Your task to perform on an android device: star an email in the gmail app Image 0: 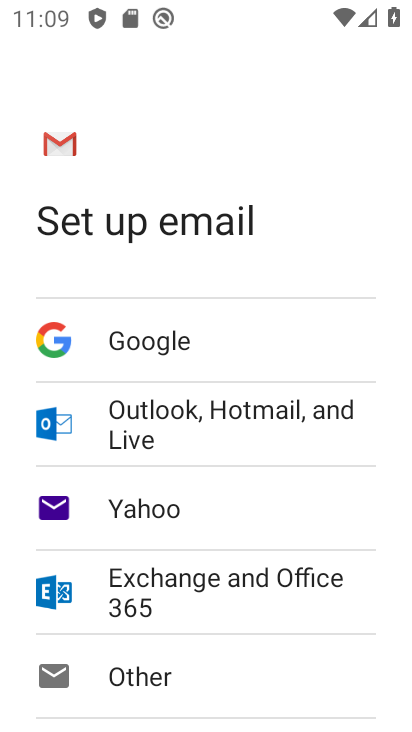
Step 0: drag from (401, 421) to (410, 370)
Your task to perform on an android device: star an email in the gmail app Image 1: 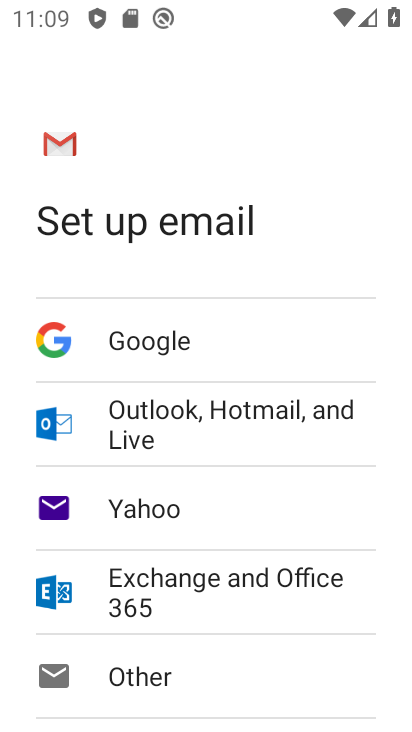
Step 1: press home button
Your task to perform on an android device: star an email in the gmail app Image 2: 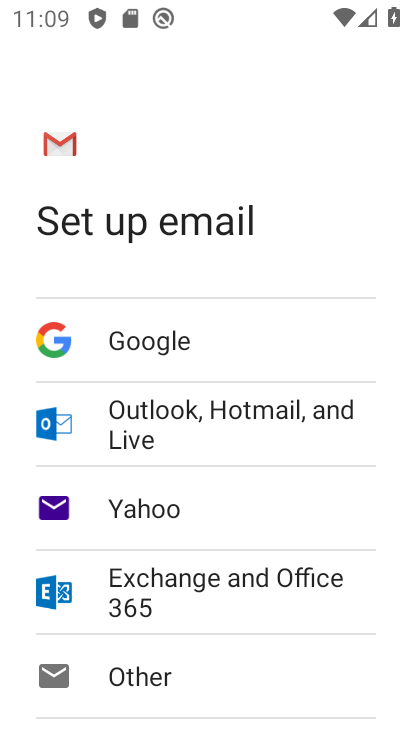
Step 2: drag from (410, 370) to (210, 710)
Your task to perform on an android device: star an email in the gmail app Image 3: 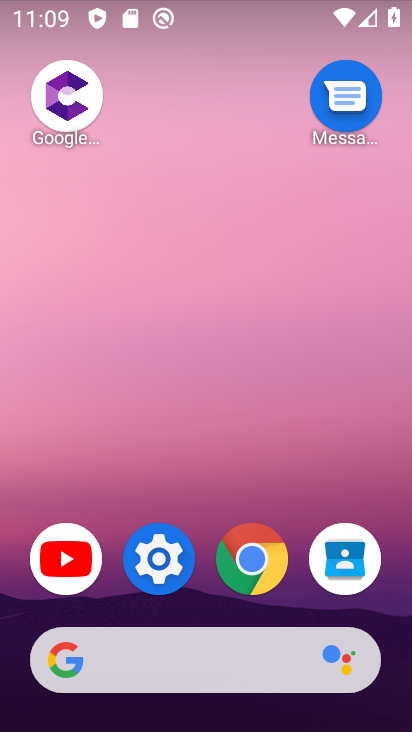
Step 3: drag from (232, 712) to (259, 274)
Your task to perform on an android device: star an email in the gmail app Image 4: 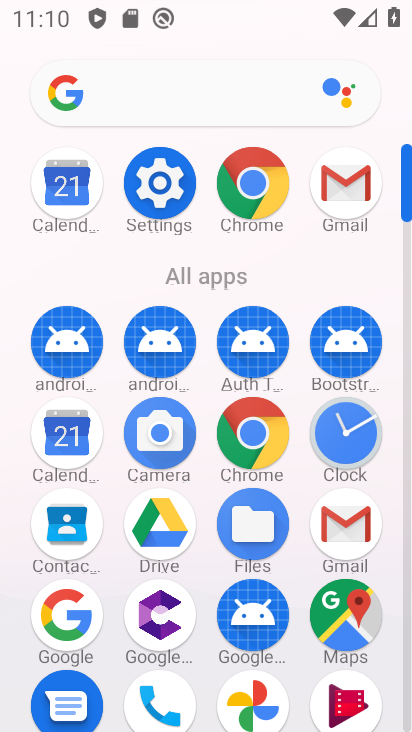
Step 4: click (334, 183)
Your task to perform on an android device: star an email in the gmail app Image 5: 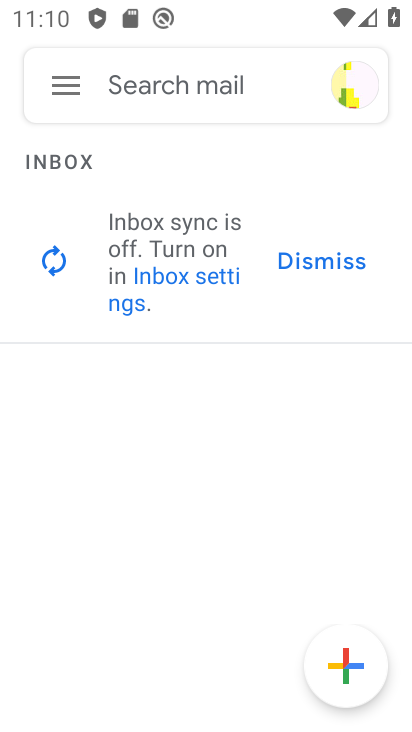
Step 5: click (68, 78)
Your task to perform on an android device: star an email in the gmail app Image 6: 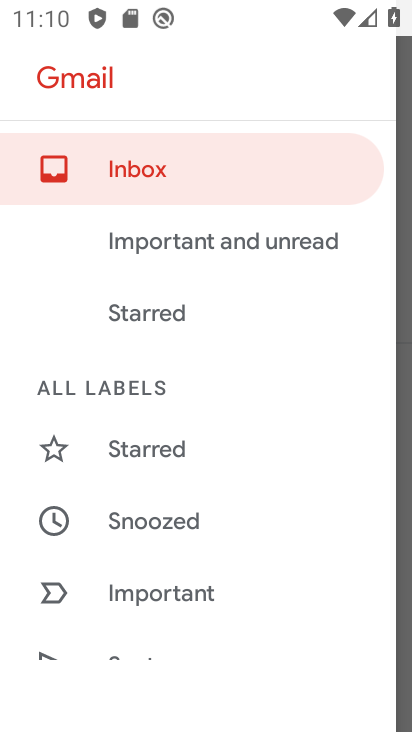
Step 6: drag from (301, 510) to (305, 166)
Your task to perform on an android device: star an email in the gmail app Image 7: 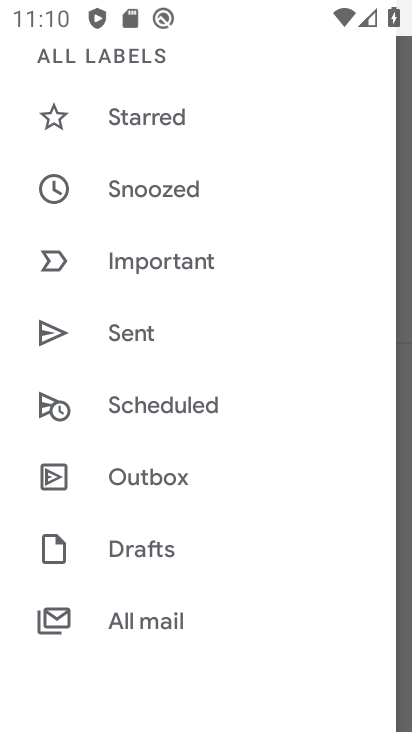
Step 7: click (173, 617)
Your task to perform on an android device: star an email in the gmail app Image 8: 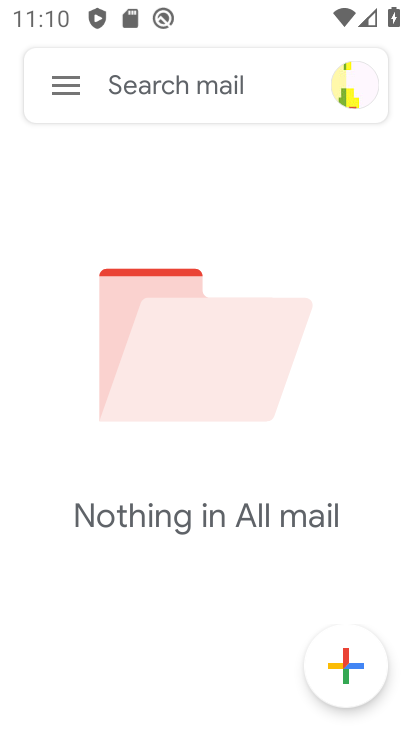
Step 8: task complete